Your task to perform on an android device: check battery use Image 0: 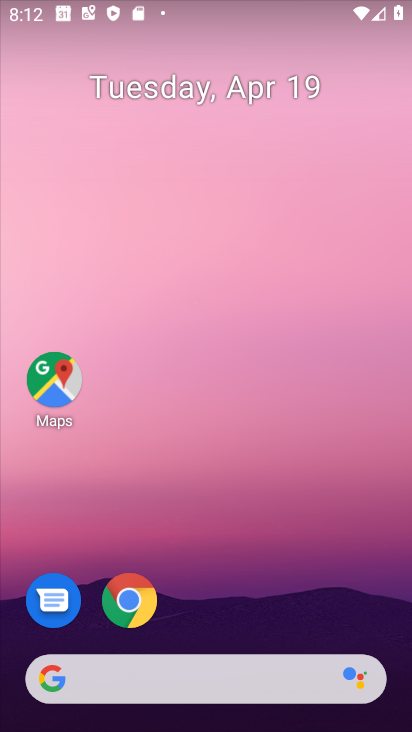
Step 0: drag from (298, 631) to (282, 53)
Your task to perform on an android device: check battery use Image 1: 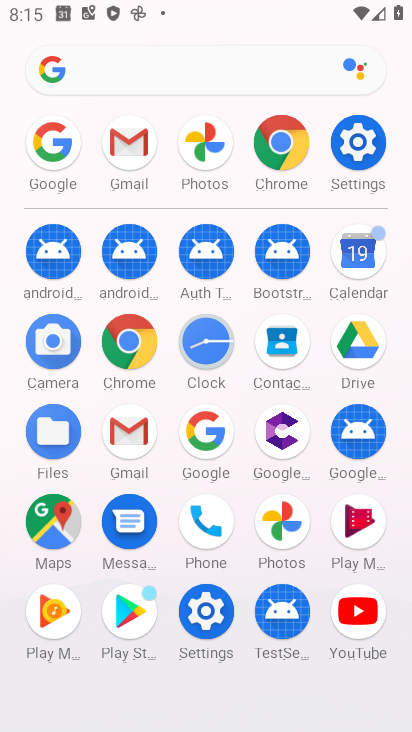
Step 1: click (360, 140)
Your task to perform on an android device: check battery use Image 2: 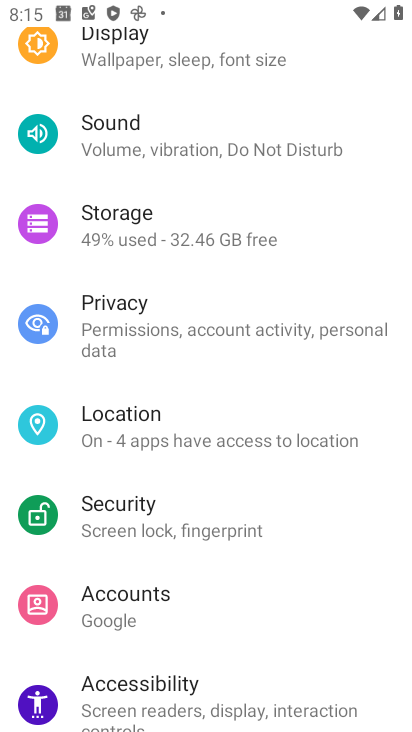
Step 2: drag from (207, 115) to (217, 522)
Your task to perform on an android device: check battery use Image 3: 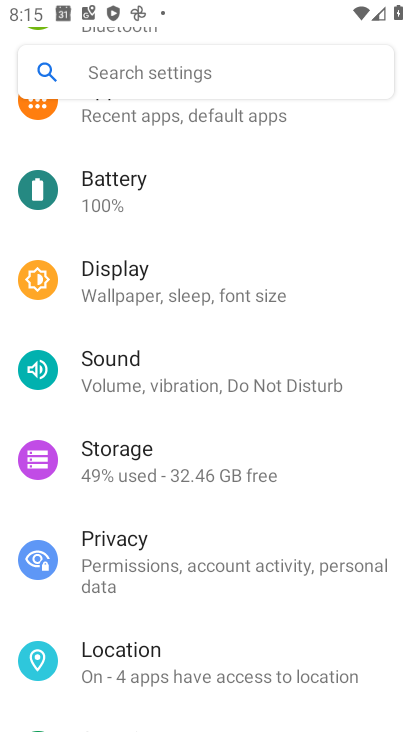
Step 3: click (113, 207)
Your task to perform on an android device: check battery use Image 4: 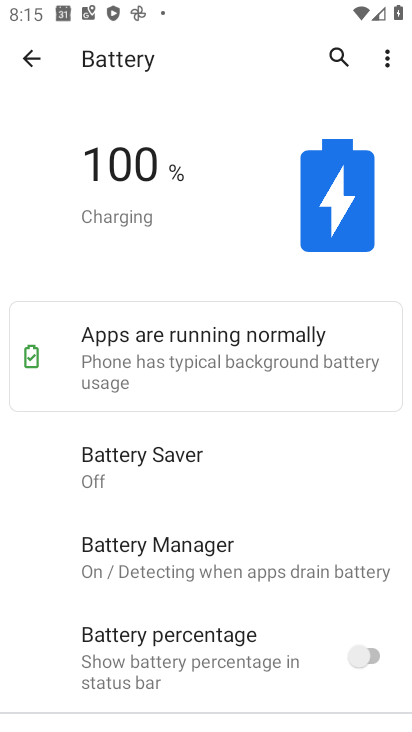
Step 4: task complete